Your task to perform on an android device: open app "Duolingo: language lessons" (install if not already installed) Image 0: 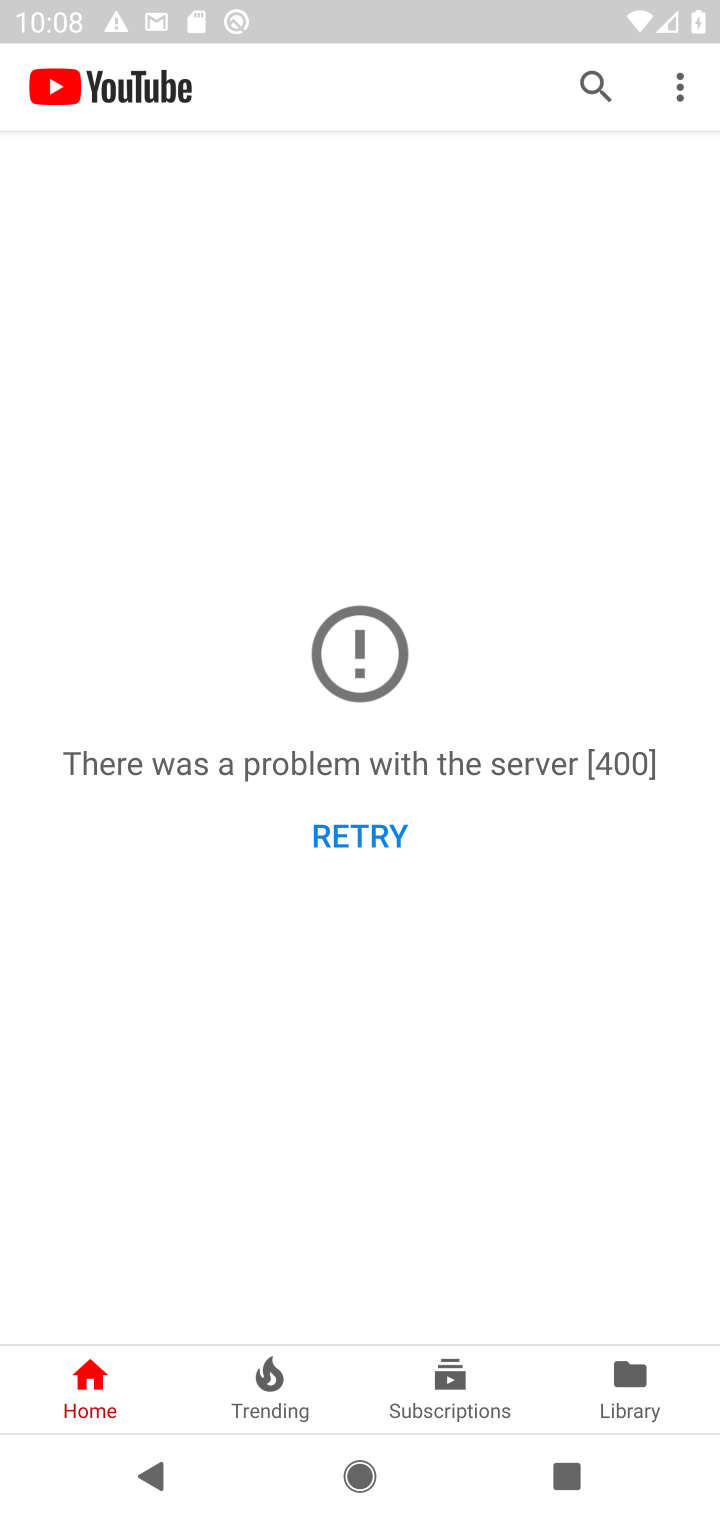
Step 0: press home button
Your task to perform on an android device: open app "Duolingo: language lessons" (install if not already installed) Image 1: 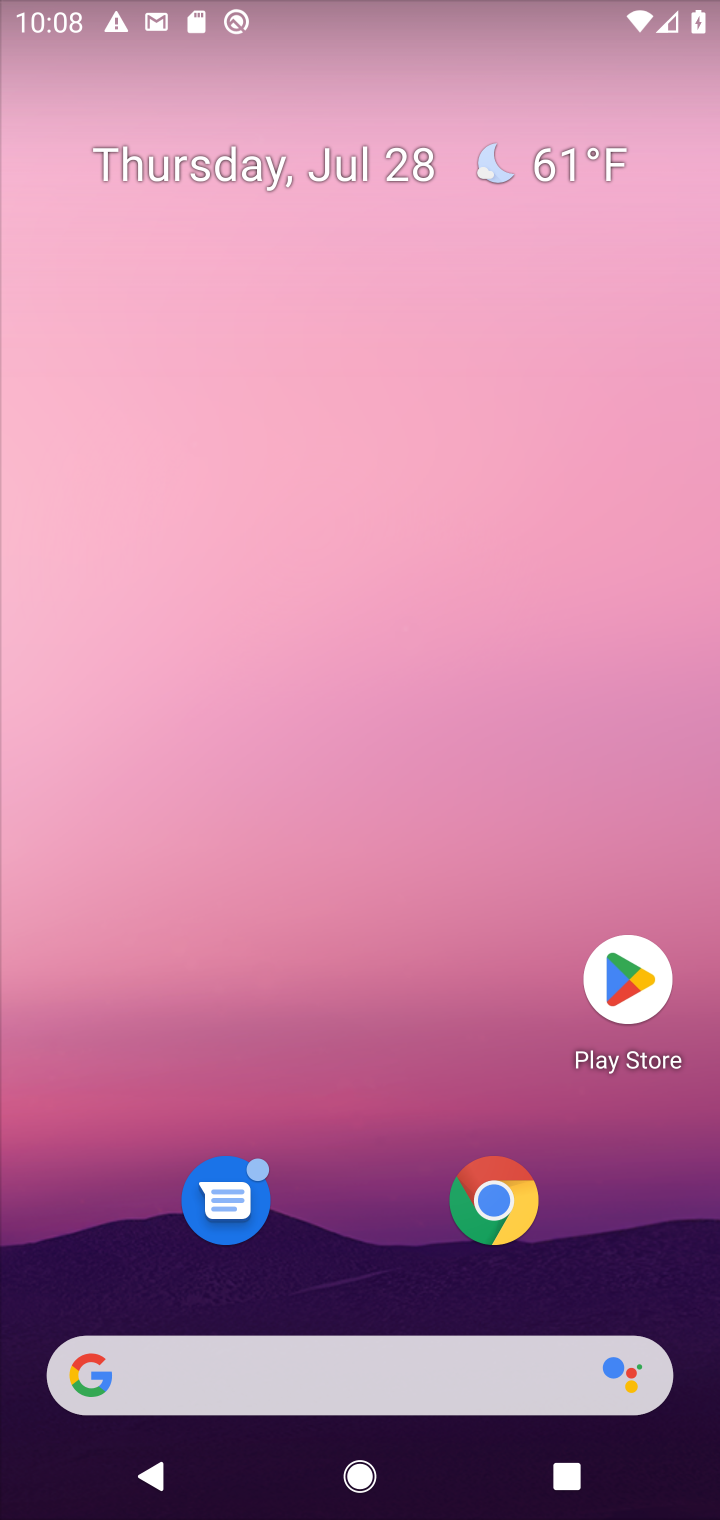
Step 1: click (624, 979)
Your task to perform on an android device: open app "Duolingo: language lessons" (install if not already installed) Image 2: 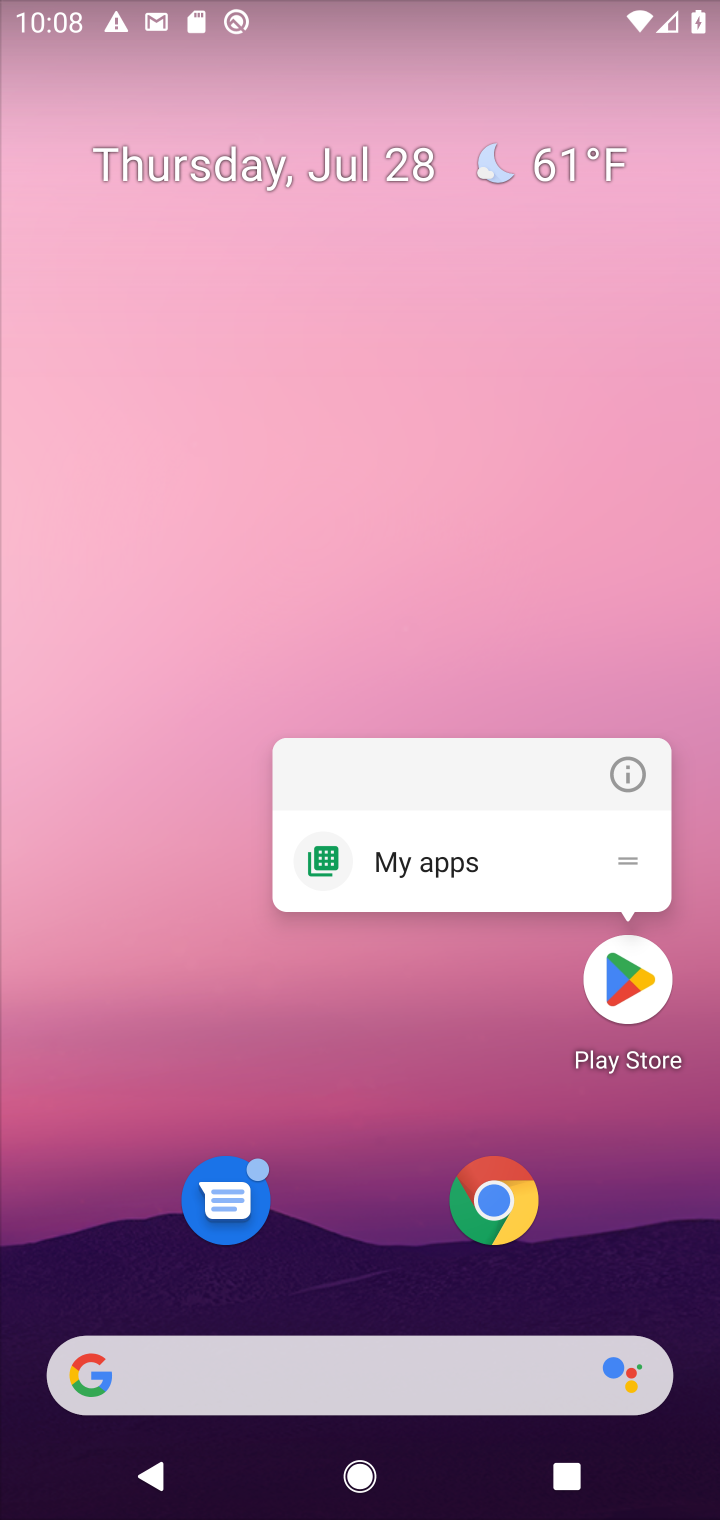
Step 2: click (624, 983)
Your task to perform on an android device: open app "Duolingo: language lessons" (install if not already installed) Image 3: 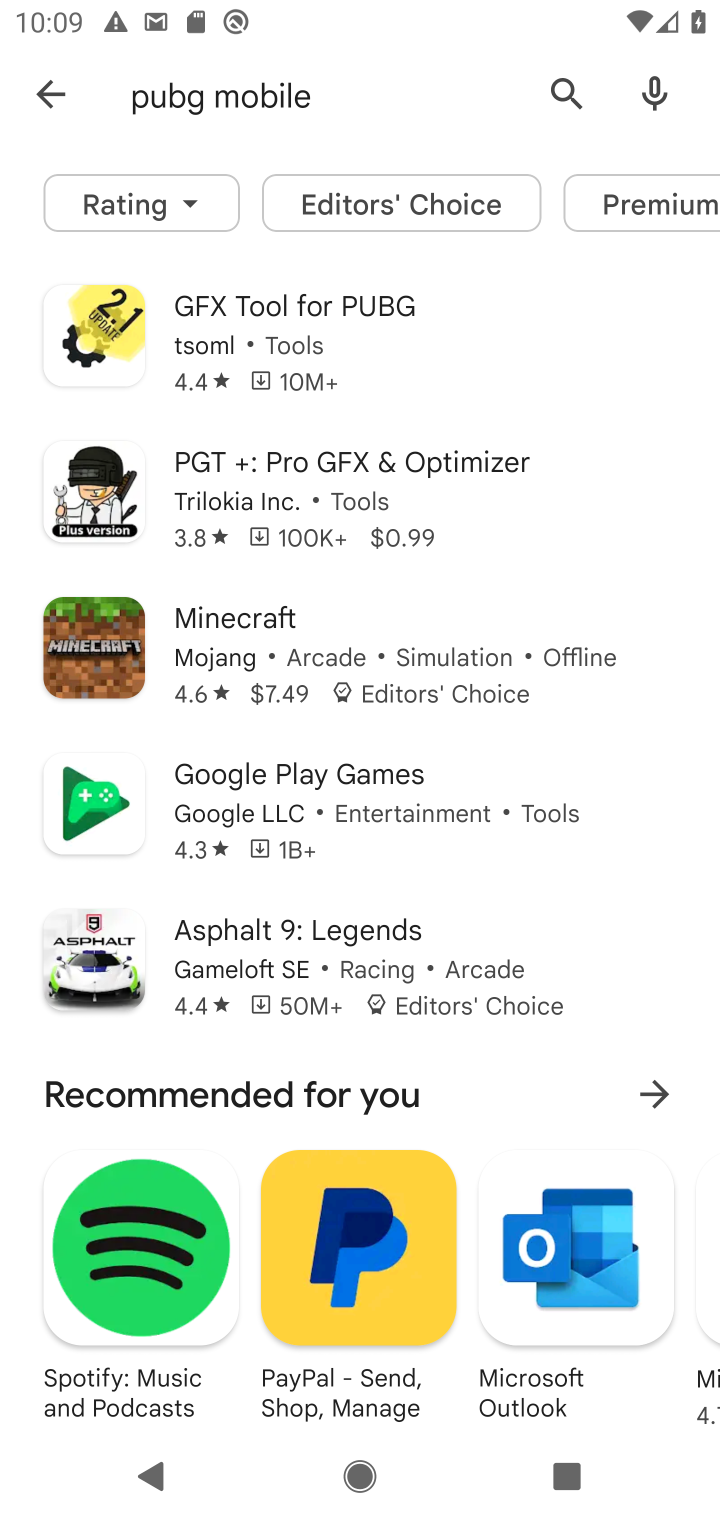
Step 3: click (561, 87)
Your task to perform on an android device: open app "Duolingo: language lessons" (install if not already installed) Image 4: 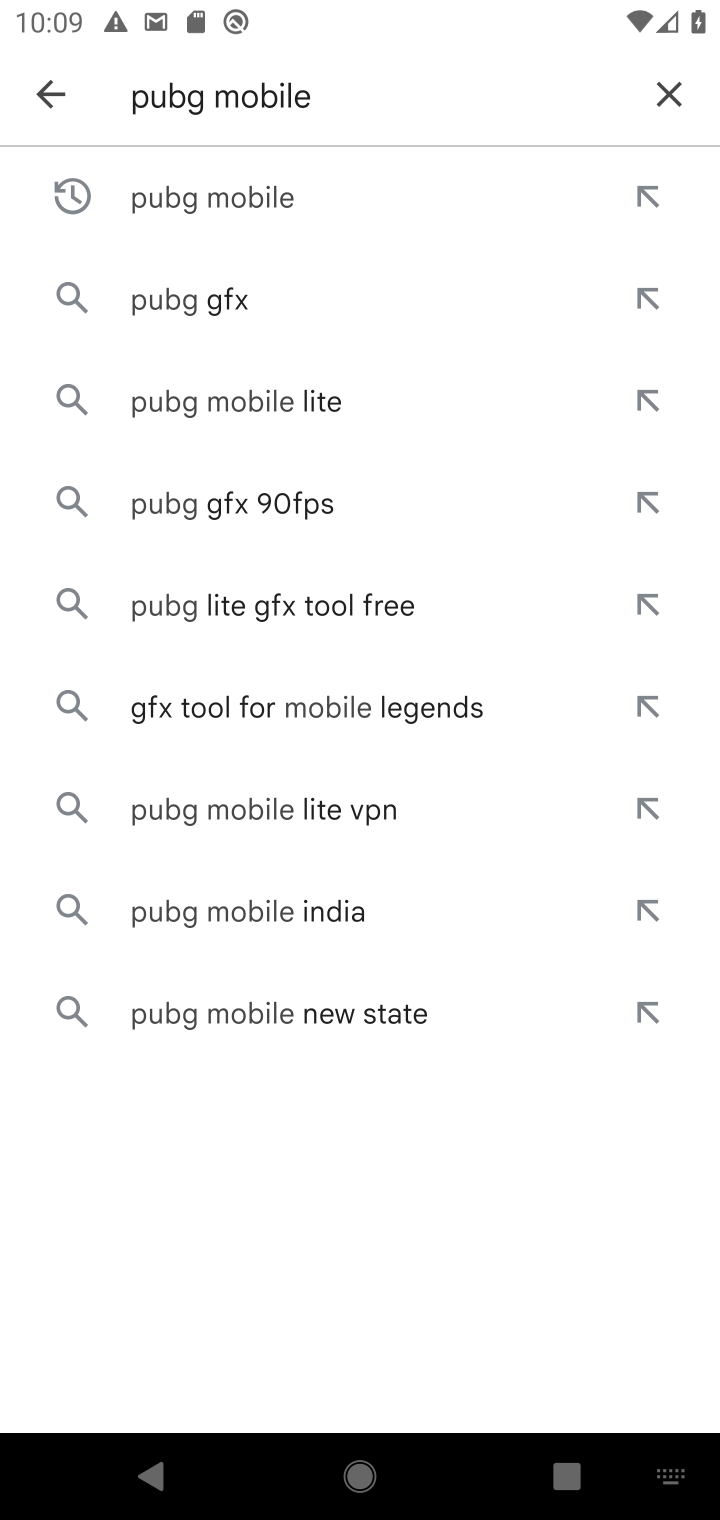
Step 4: click (678, 85)
Your task to perform on an android device: open app "Duolingo: language lessons" (install if not already installed) Image 5: 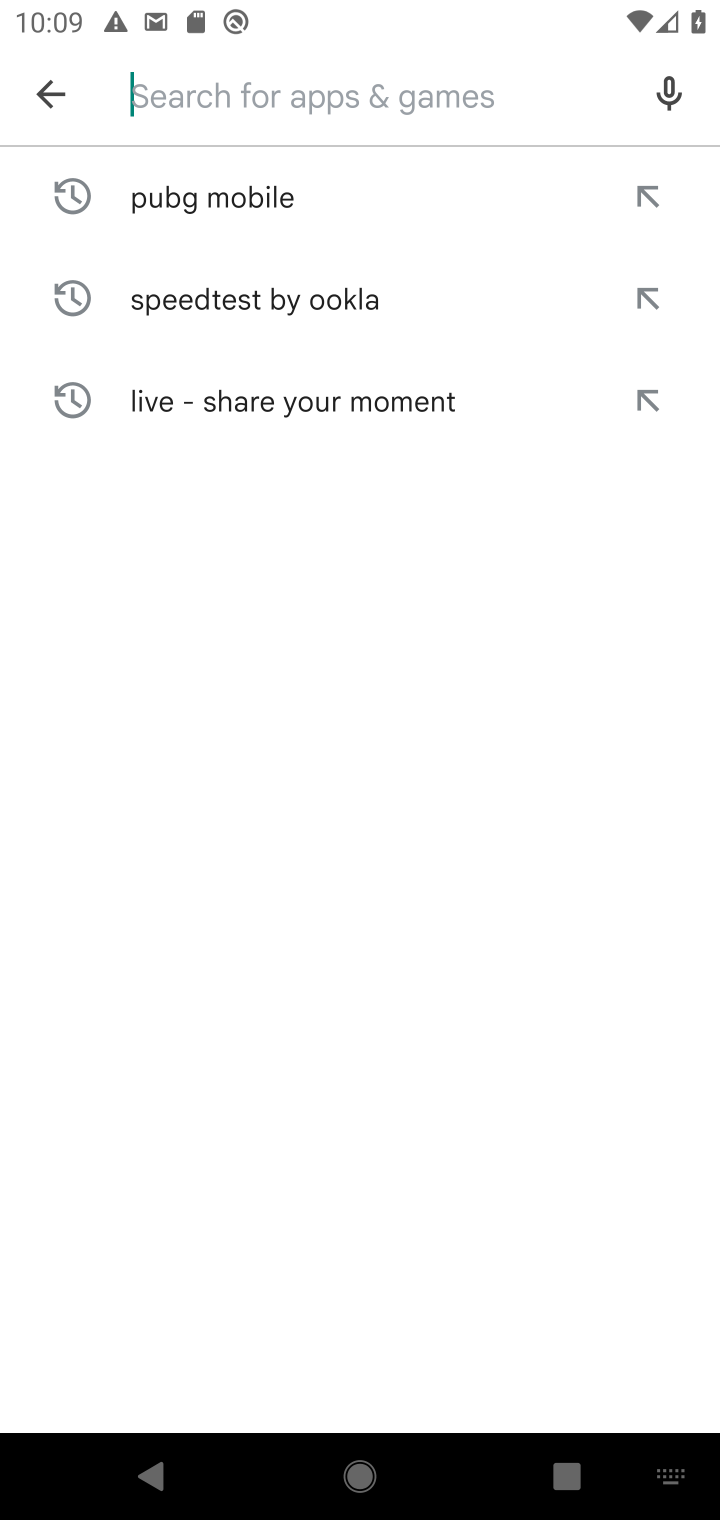
Step 5: type "Duolingo: language lessons"
Your task to perform on an android device: open app "Duolingo: language lessons" (install if not already installed) Image 6: 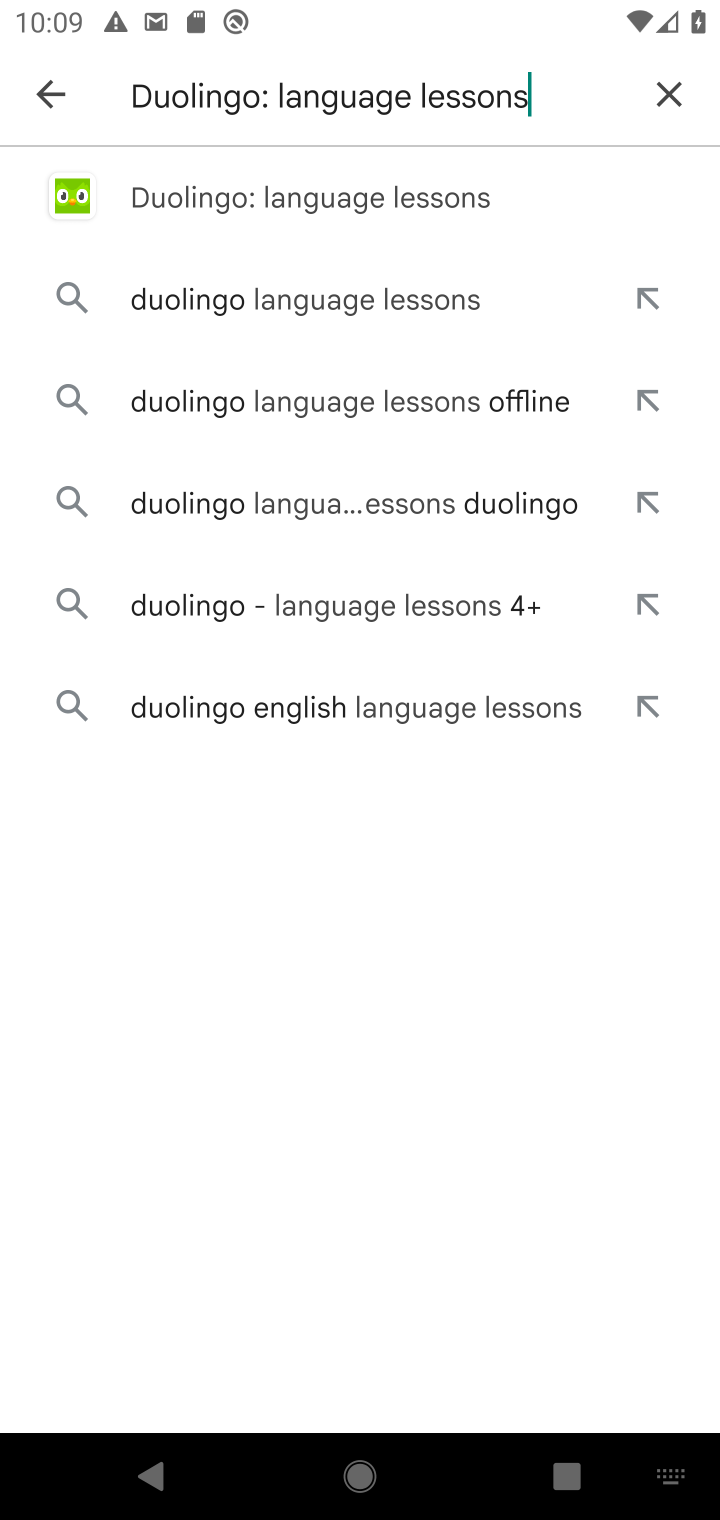
Step 6: click (321, 196)
Your task to perform on an android device: open app "Duolingo: language lessons" (install if not already installed) Image 7: 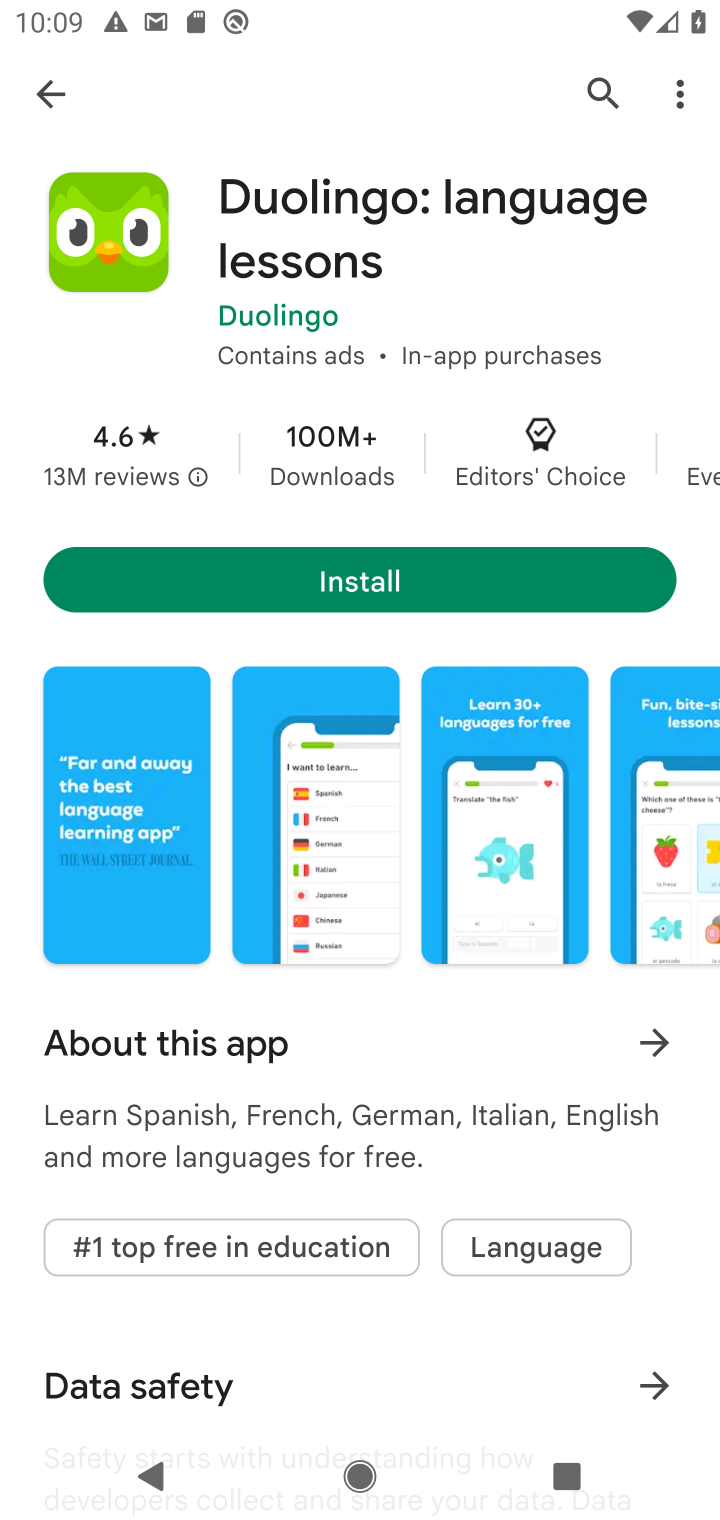
Step 7: click (359, 574)
Your task to perform on an android device: open app "Duolingo: language lessons" (install if not already installed) Image 8: 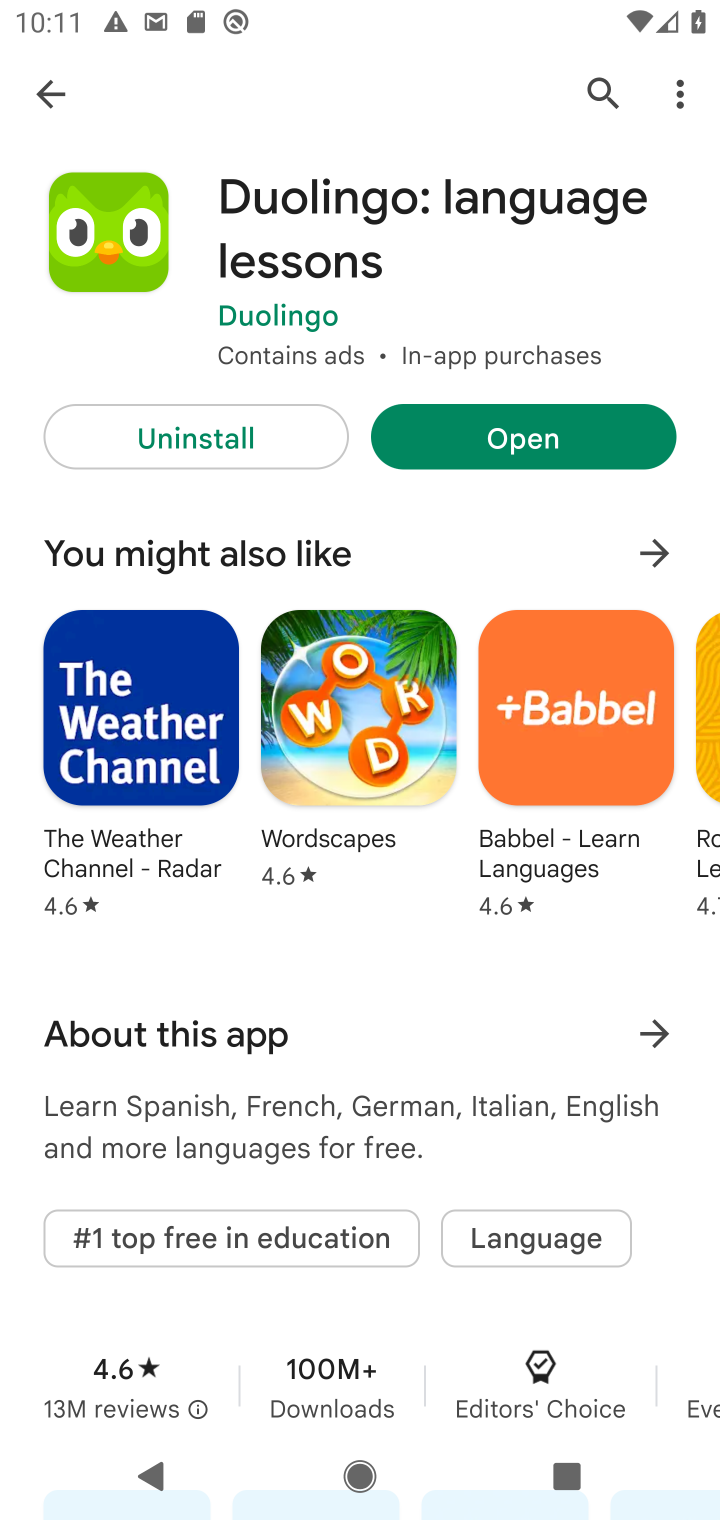
Step 8: click (576, 432)
Your task to perform on an android device: open app "Duolingo: language lessons" (install if not already installed) Image 9: 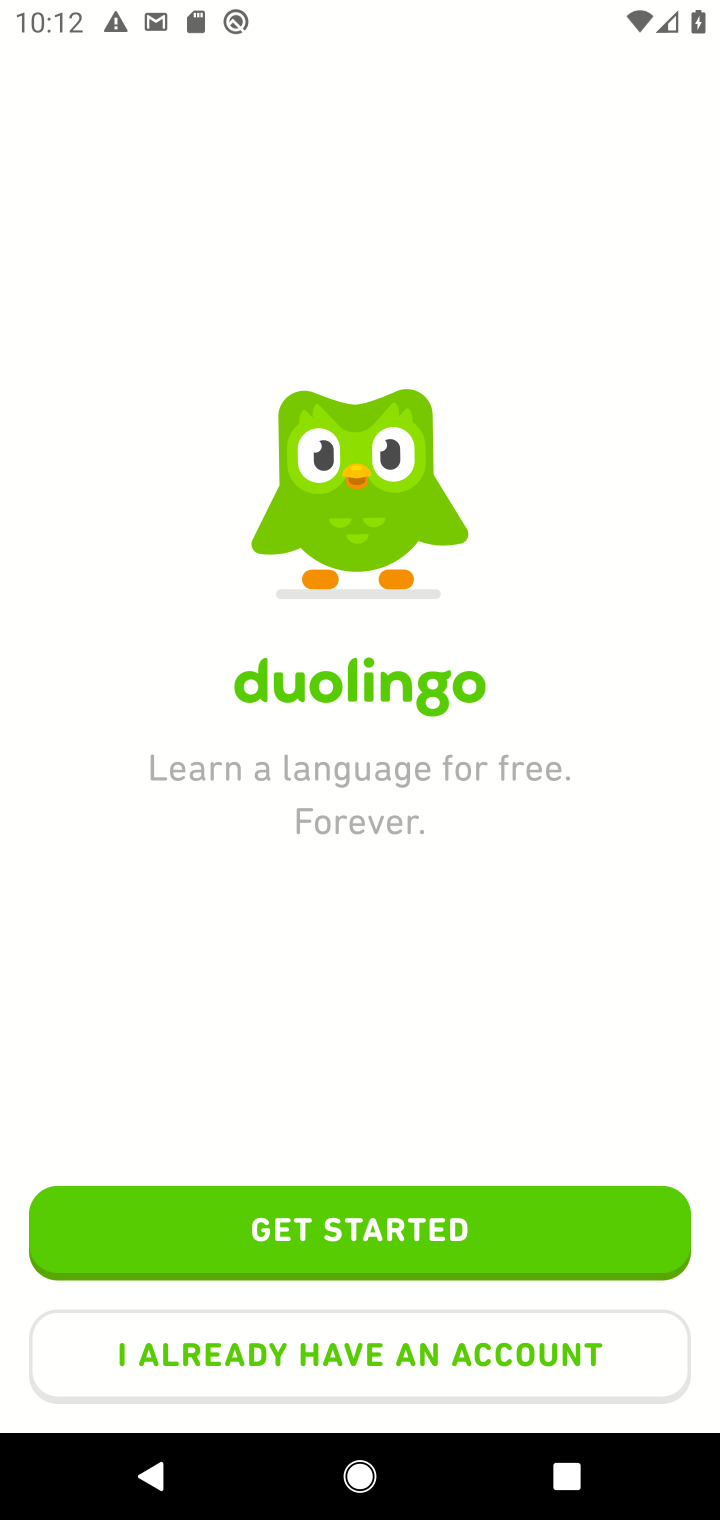
Step 9: task complete